Your task to perform on an android device: Go to Google Image 0: 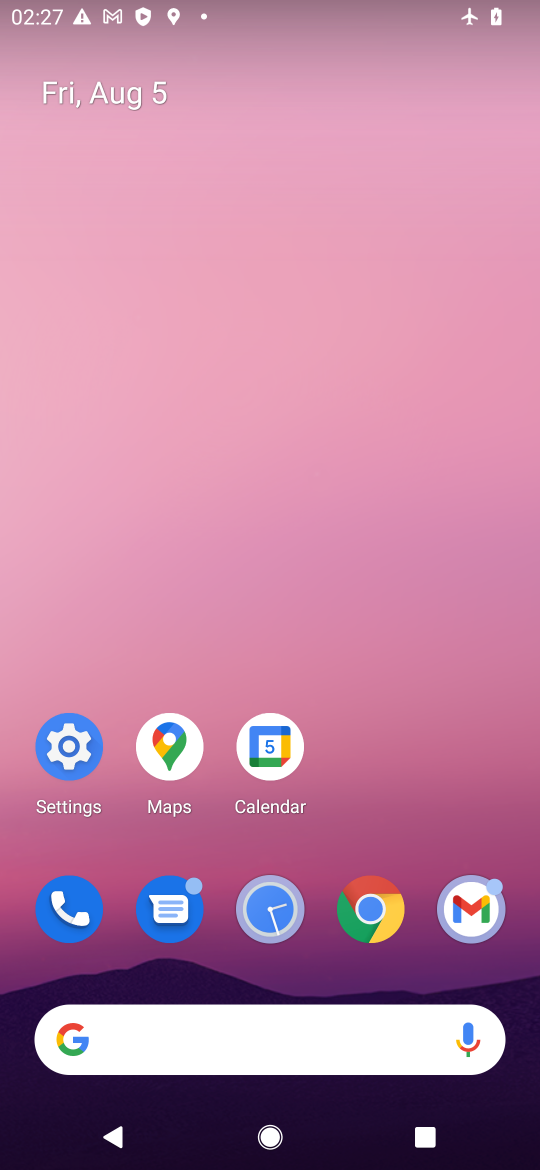
Step 0: click (63, 1038)
Your task to perform on an android device: Go to Google Image 1: 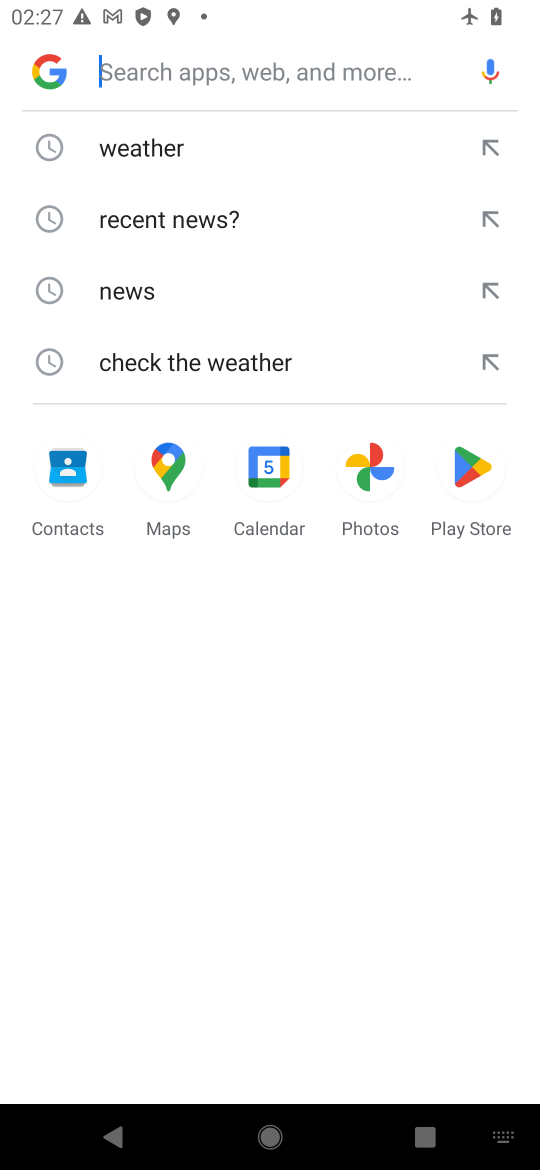
Step 1: click (48, 59)
Your task to perform on an android device: Go to Google Image 2: 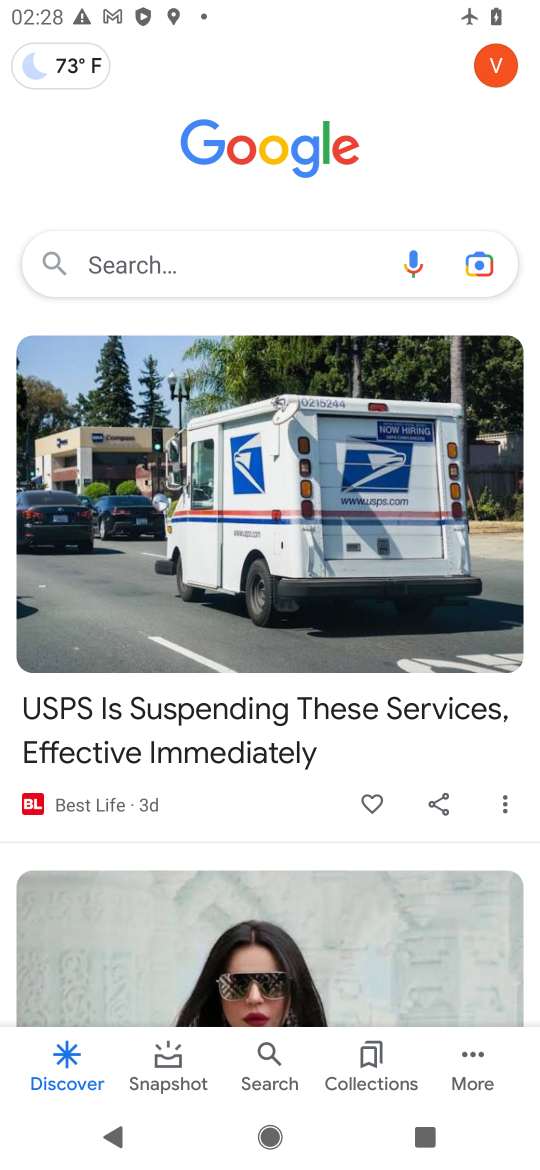
Step 2: task complete